Your task to perform on an android device: Open Google Maps Image 0: 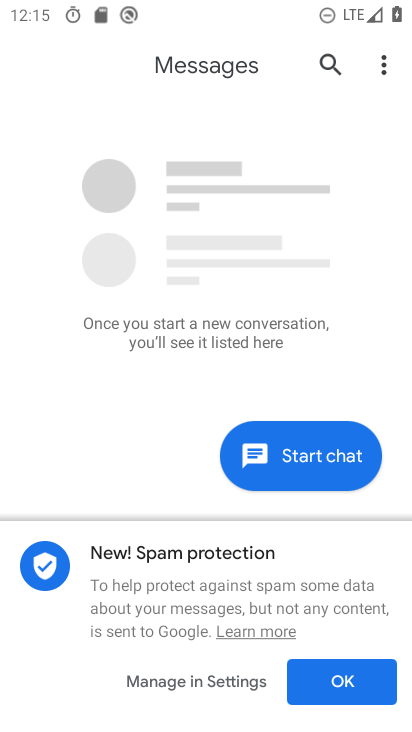
Step 0: press home button
Your task to perform on an android device: Open Google Maps Image 1: 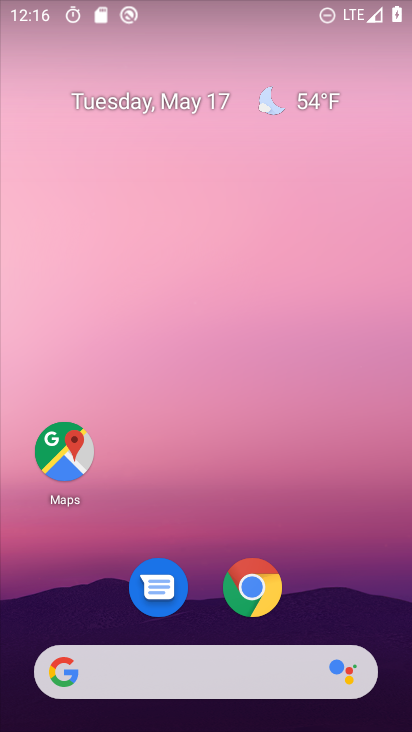
Step 1: drag from (193, 625) to (241, 179)
Your task to perform on an android device: Open Google Maps Image 2: 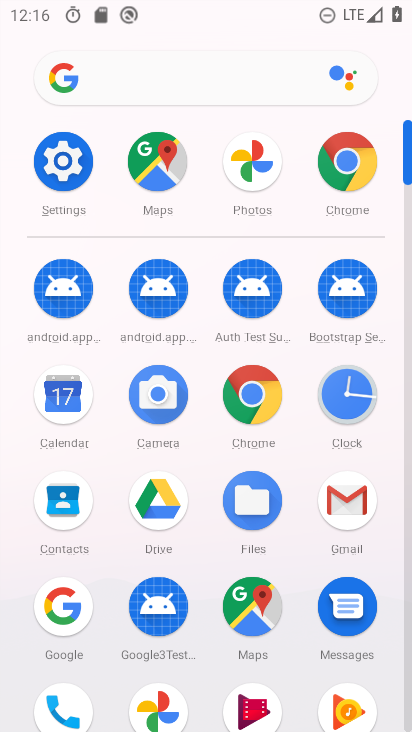
Step 2: click (252, 607)
Your task to perform on an android device: Open Google Maps Image 3: 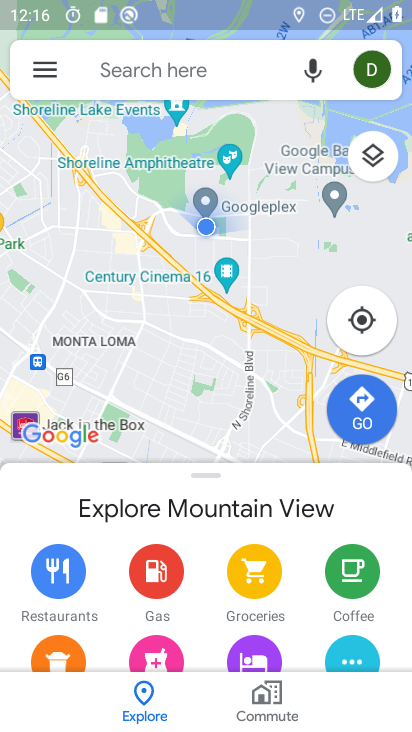
Step 3: task complete